Your task to perform on an android device: Toggle the flashlight Image 0: 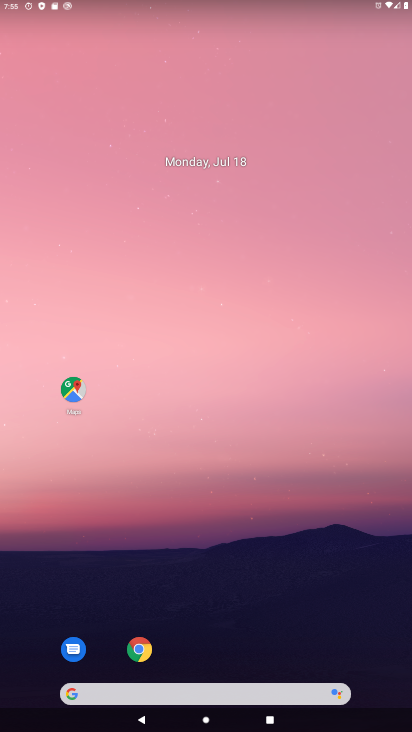
Step 0: drag from (321, 637) to (259, 92)
Your task to perform on an android device: Toggle the flashlight Image 1: 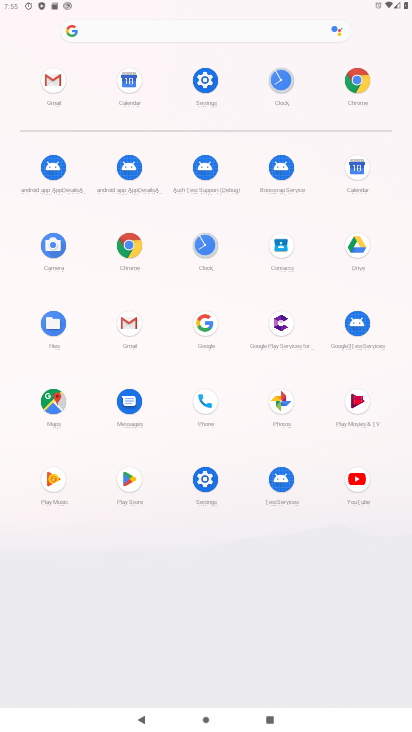
Step 1: click (197, 77)
Your task to perform on an android device: Toggle the flashlight Image 2: 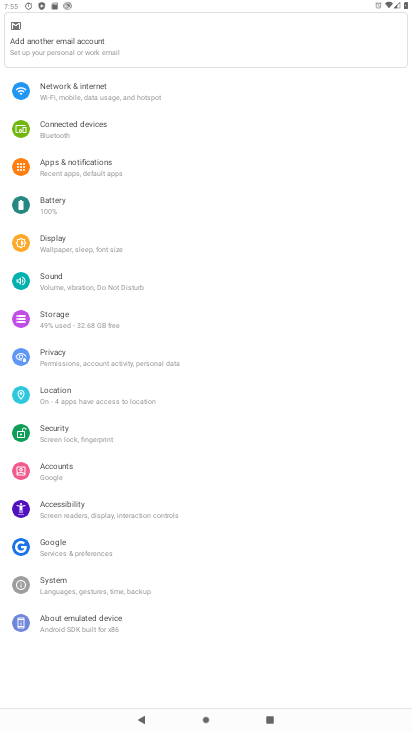
Step 2: click (57, 243)
Your task to perform on an android device: Toggle the flashlight Image 3: 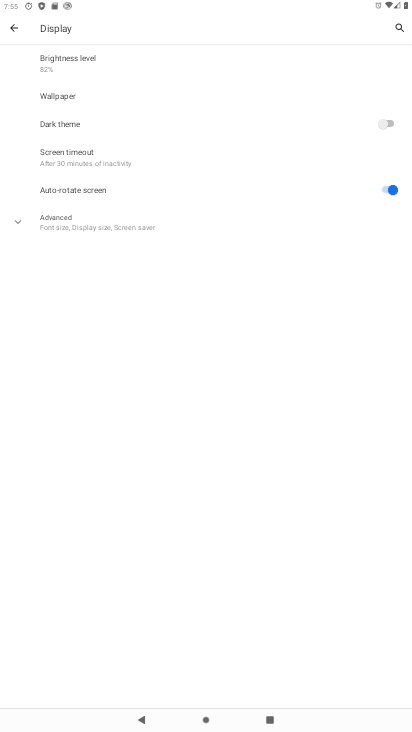
Step 3: click (113, 157)
Your task to perform on an android device: Toggle the flashlight Image 4: 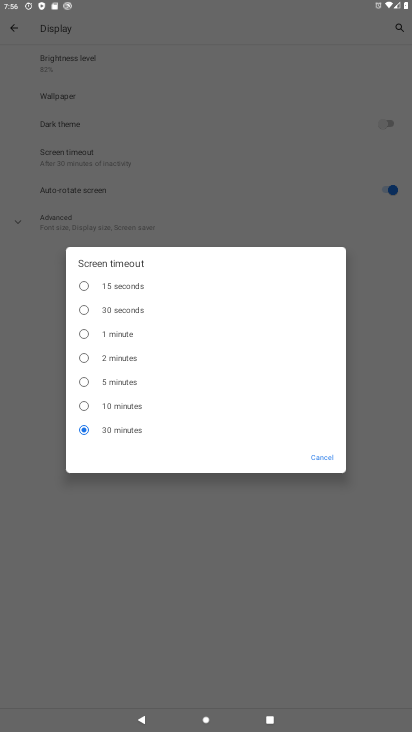
Step 4: task complete